Your task to perform on an android device: toggle javascript in the chrome app Image 0: 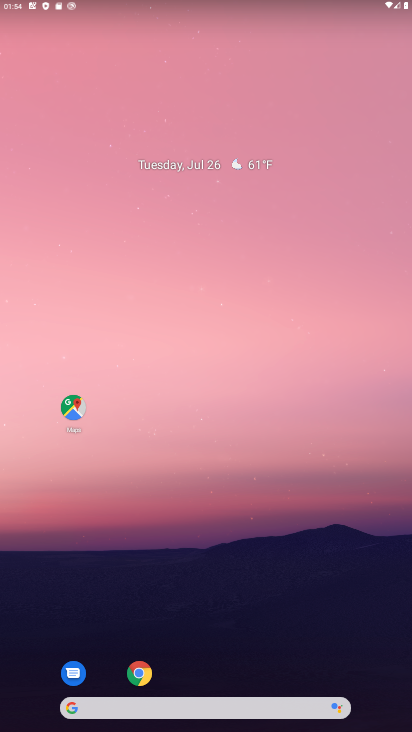
Step 0: click (136, 675)
Your task to perform on an android device: toggle javascript in the chrome app Image 1: 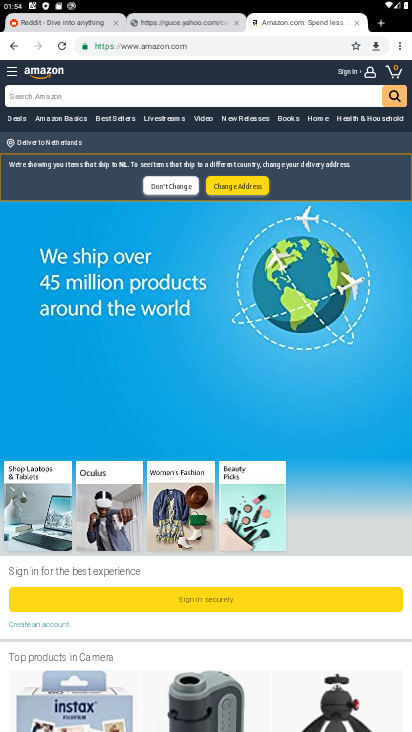
Step 1: click (400, 49)
Your task to perform on an android device: toggle javascript in the chrome app Image 2: 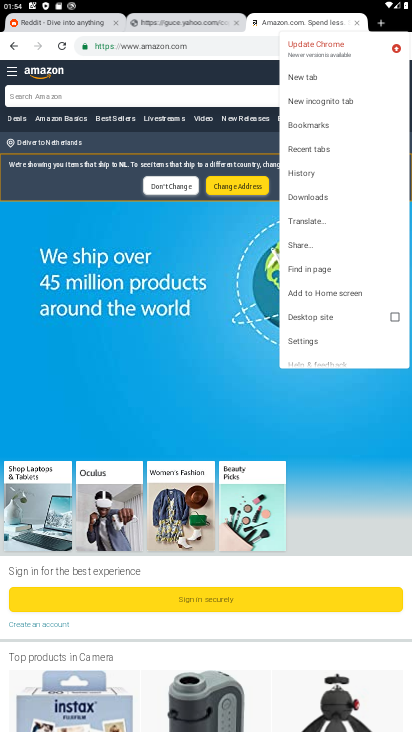
Step 2: click (302, 338)
Your task to perform on an android device: toggle javascript in the chrome app Image 3: 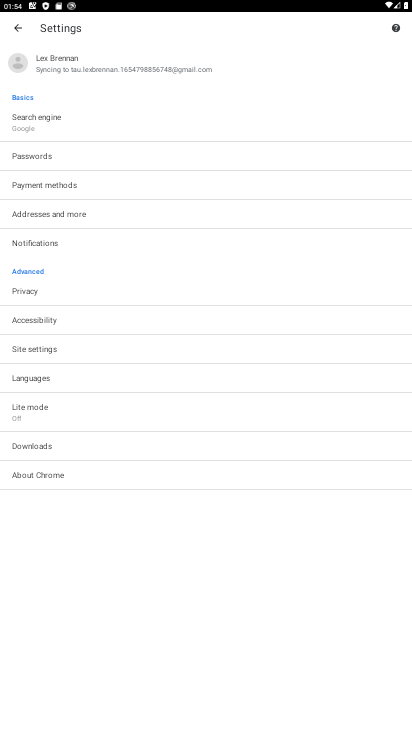
Step 3: click (32, 351)
Your task to perform on an android device: toggle javascript in the chrome app Image 4: 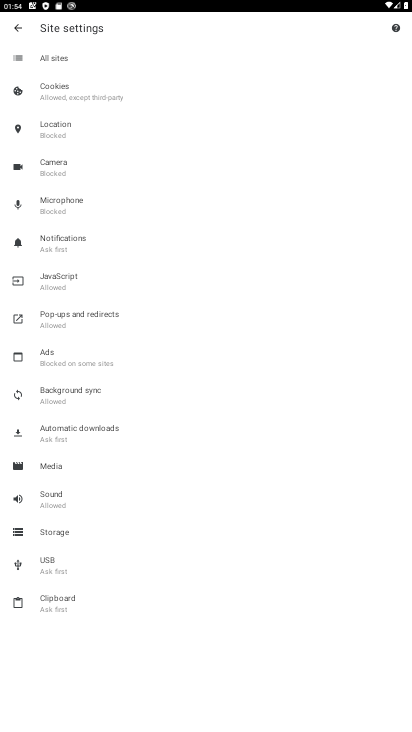
Step 4: click (55, 272)
Your task to perform on an android device: toggle javascript in the chrome app Image 5: 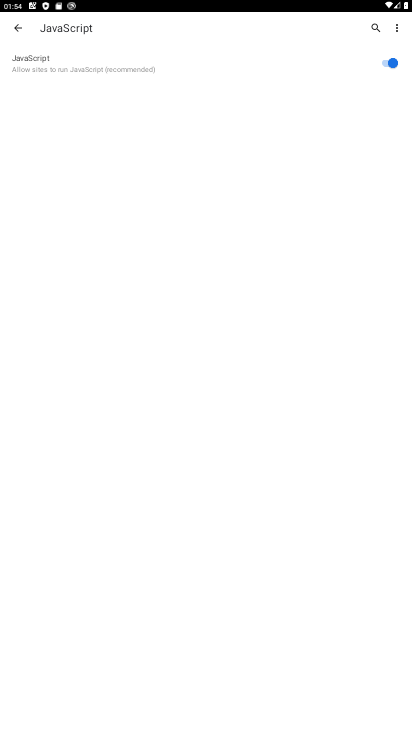
Step 5: click (389, 54)
Your task to perform on an android device: toggle javascript in the chrome app Image 6: 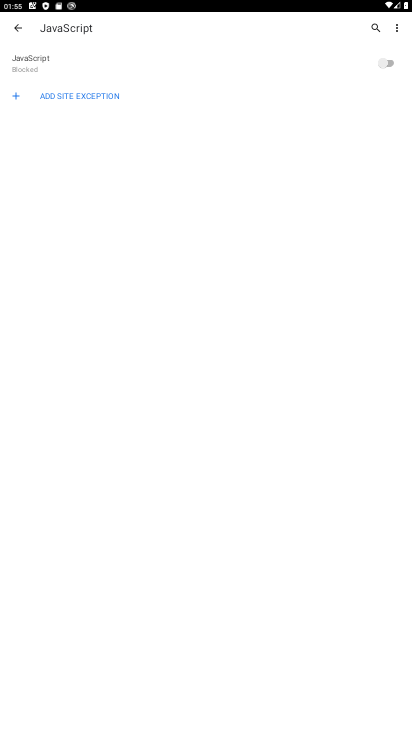
Step 6: task complete